Your task to perform on an android device: Show me popular videos on Youtube Image 0: 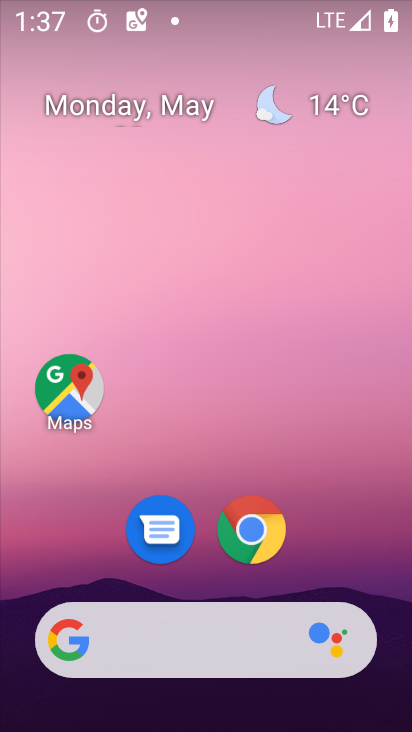
Step 0: drag from (362, 533) to (410, 108)
Your task to perform on an android device: Show me popular videos on Youtube Image 1: 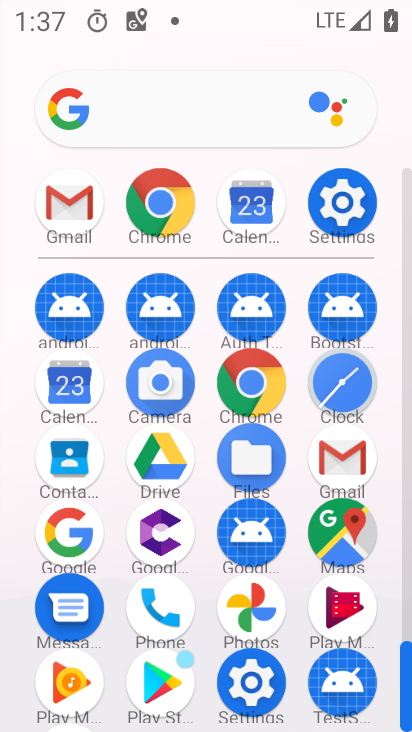
Step 1: drag from (380, 643) to (397, 400)
Your task to perform on an android device: Show me popular videos on Youtube Image 2: 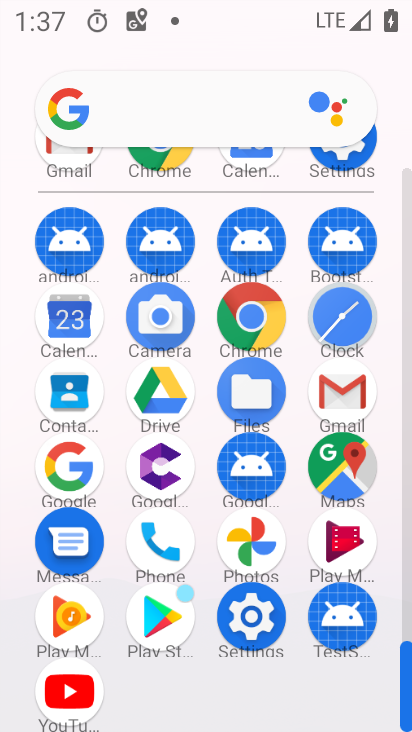
Step 2: click (61, 694)
Your task to perform on an android device: Show me popular videos on Youtube Image 3: 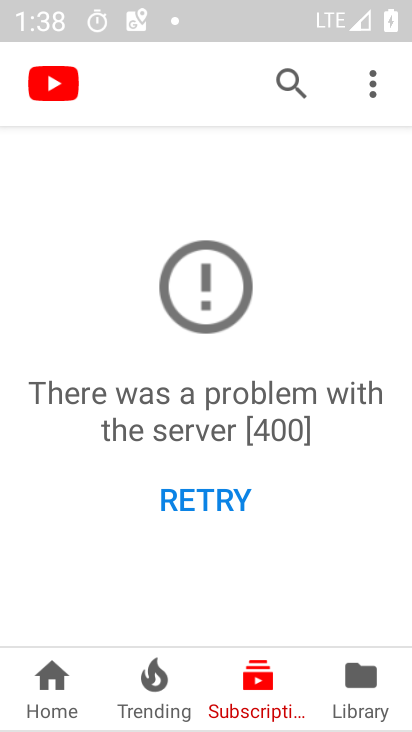
Step 3: drag from (286, 564) to (314, 263)
Your task to perform on an android device: Show me popular videos on Youtube Image 4: 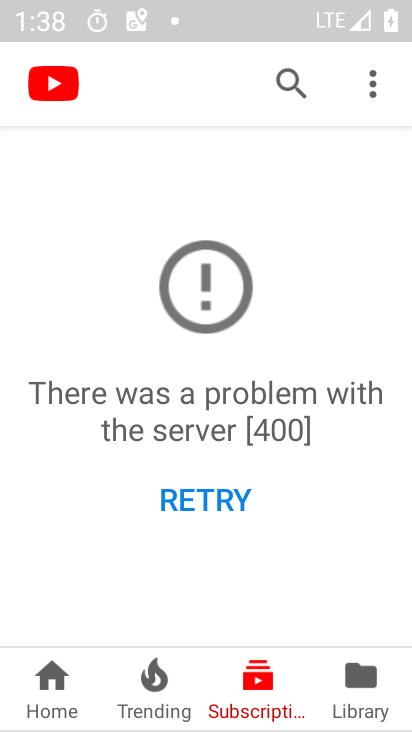
Step 4: click (368, 697)
Your task to perform on an android device: Show me popular videos on Youtube Image 5: 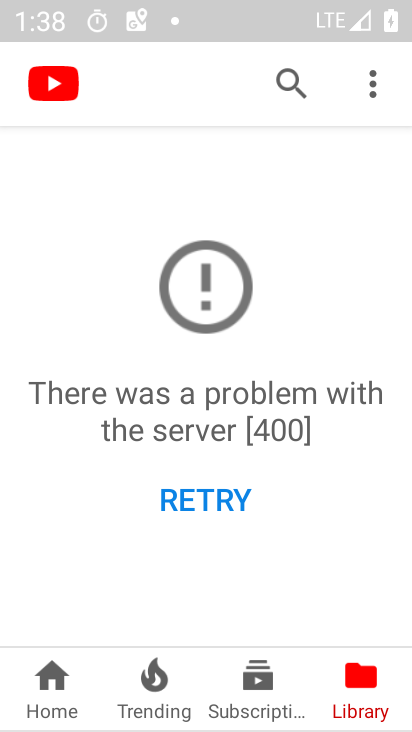
Step 5: task complete